Your task to perform on an android device: Go to sound settings Image 0: 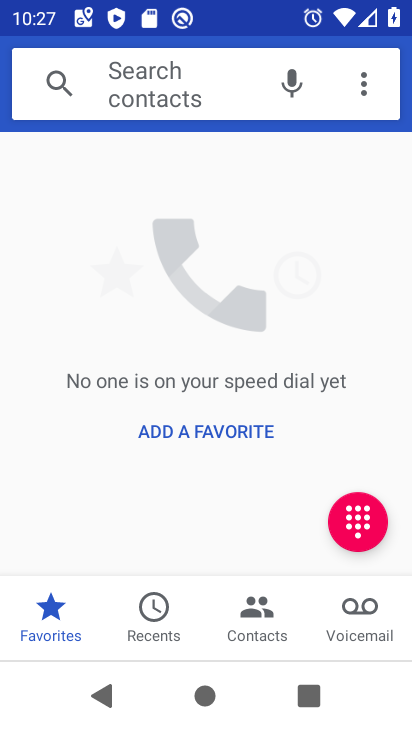
Step 0: press home button
Your task to perform on an android device: Go to sound settings Image 1: 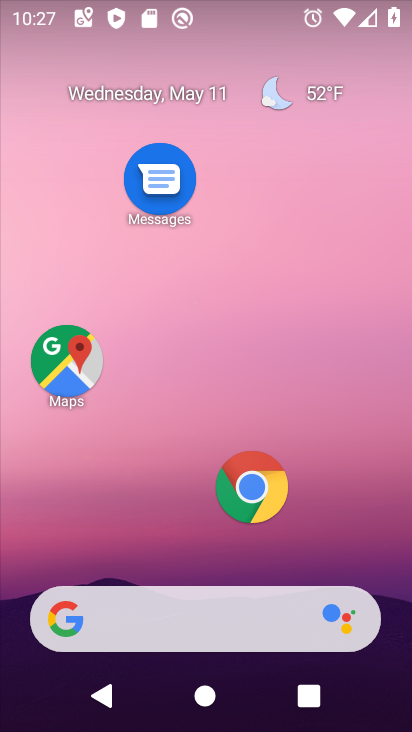
Step 1: drag from (195, 555) to (197, 129)
Your task to perform on an android device: Go to sound settings Image 2: 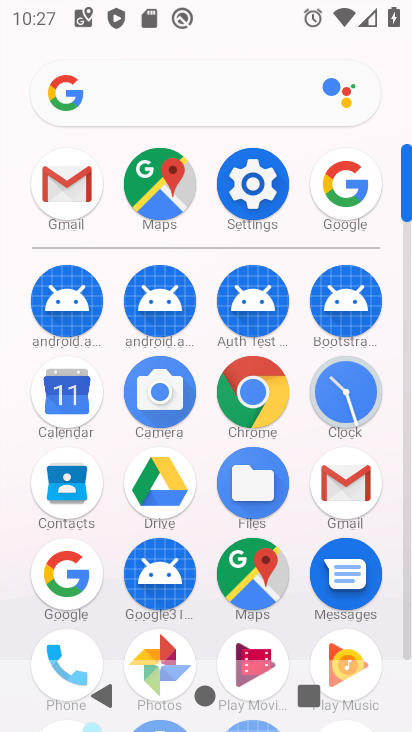
Step 2: click (226, 159)
Your task to perform on an android device: Go to sound settings Image 3: 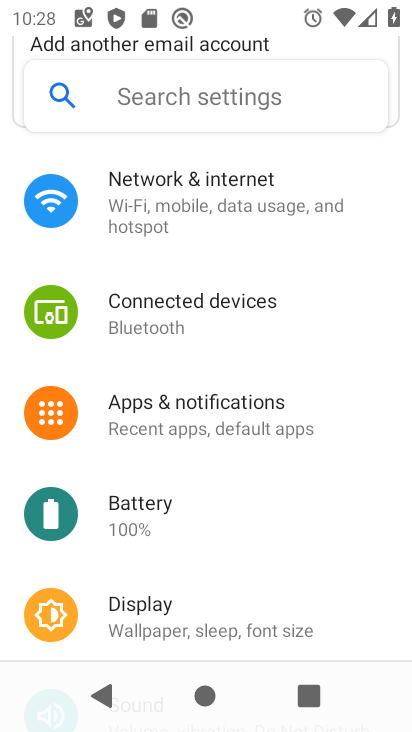
Step 3: drag from (202, 591) to (218, 316)
Your task to perform on an android device: Go to sound settings Image 4: 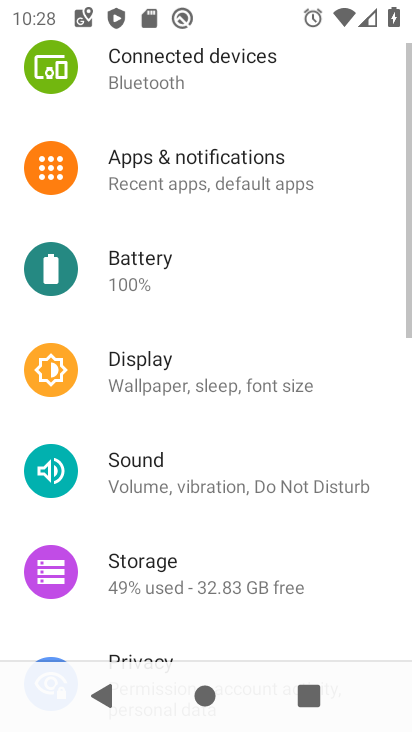
Step 4: click (163, 502)
Your task to perform on an android device: Go to sound settings Image 5: 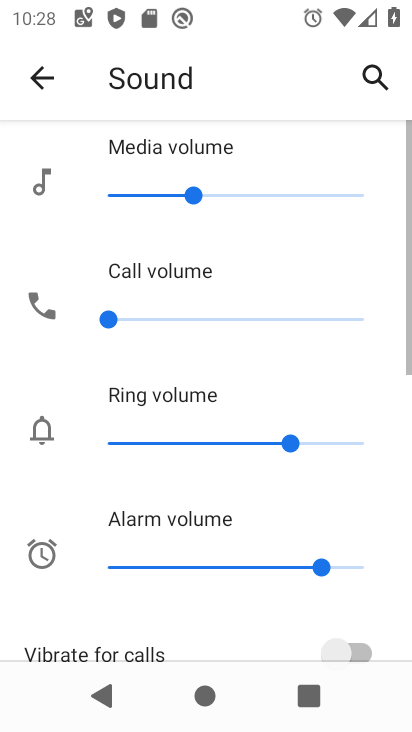
Step 5: task complete